Your task to perform on an android device: Clear the shopping cart on amazon. Add "usb-c to usb-b" to the cart on amazon Image 0: 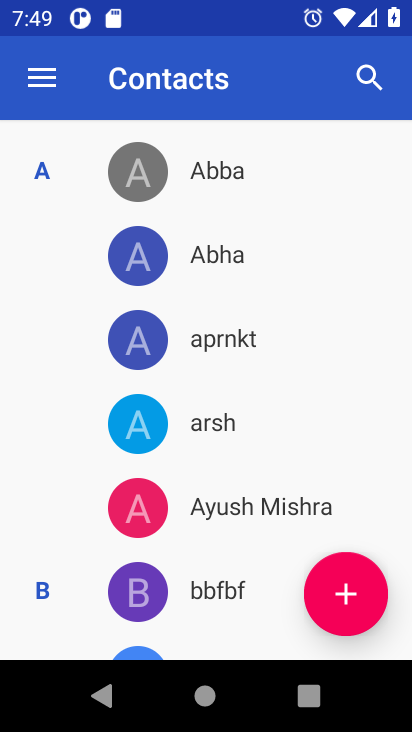
Step 0: press home button
Your task to perform on an android device: Clear the shopping cart on amazon. Add "usb-c to usb-b" to the cart on amazon Image 1: 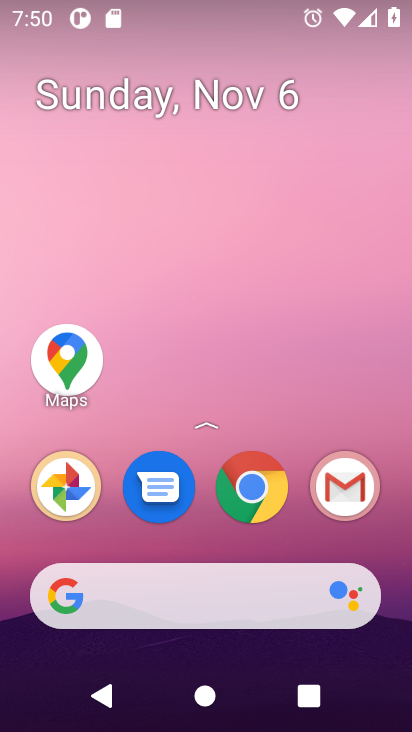
Step 1: click (260, 483)
Your task to perform on an android device: Clear the shopping cart on amazon. Add "usb-c to usb-b" to the cart on amazon Image 2: 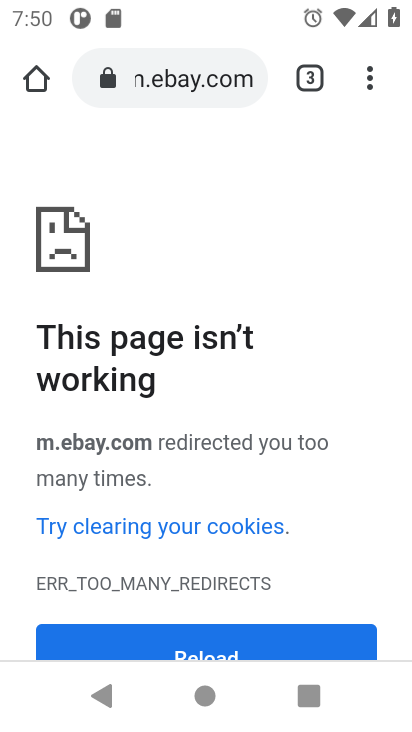
Step 2: click (156, 63)
Your task to perform on an android device: Clear the shopping cart on amazon. Add "usb-c to usb-b" to the cart on amazon Image 3: 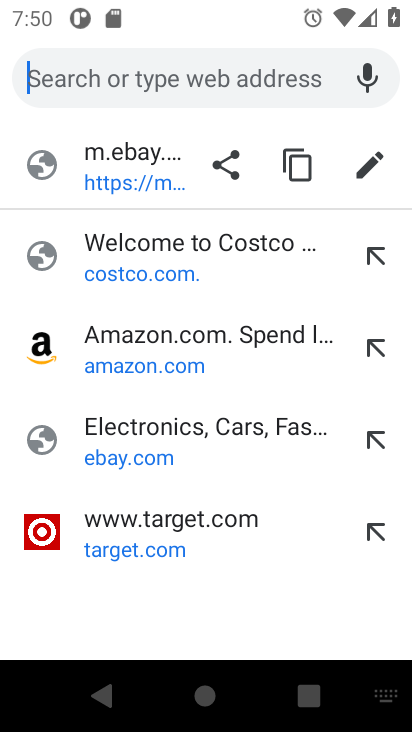
Step 3: click (116, 368)
Your task to perform on an android device: Clear the shopping cart on amazon. Add "usb-c to usb-b" to the cart on amazon Image 4: 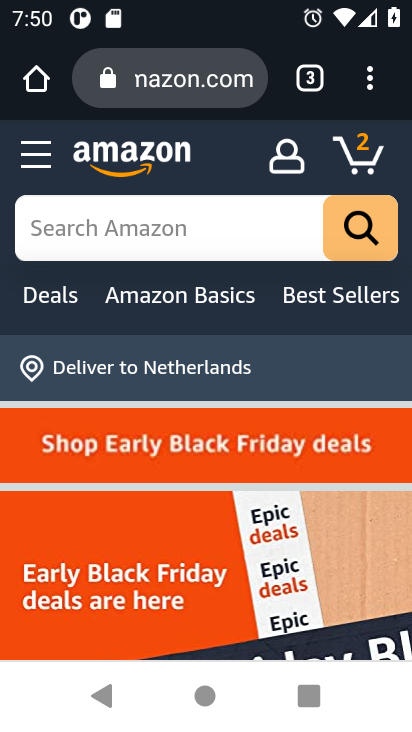
Step 4: click (118, 216)
Your task to perform on an android device: Clear the shopping cart on amazon. Add "usb-c to usb-b" to the cart on amazon Image 5: 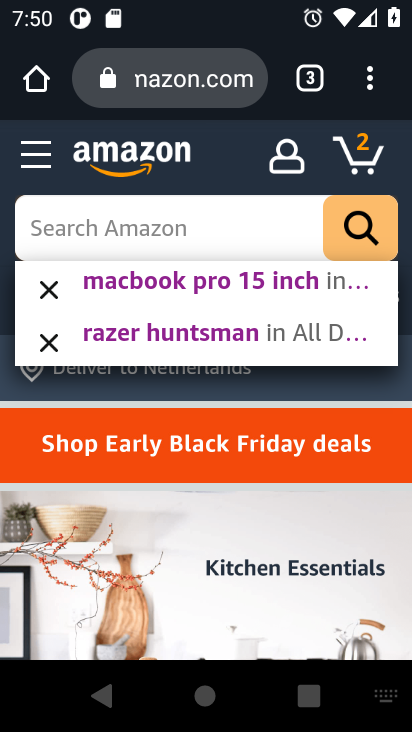
Step 5: type "usb-c to usb-b"
Your task to perform on an android device: Clear the shopping cart on amazon. Add "usb-c to usb-b" to the cart on amazon Image 6: 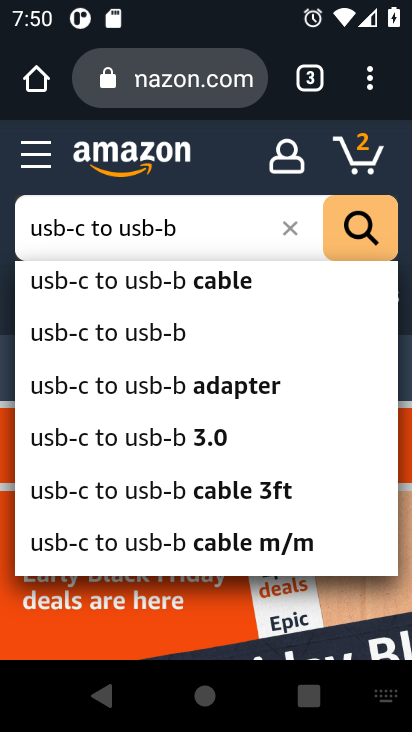
Step 6: click (360, 224)
Your task to perform on an android device: Clear the shopping cart on amazon. Add "usb-c to usb-b" to the cart on amazon Image 7: 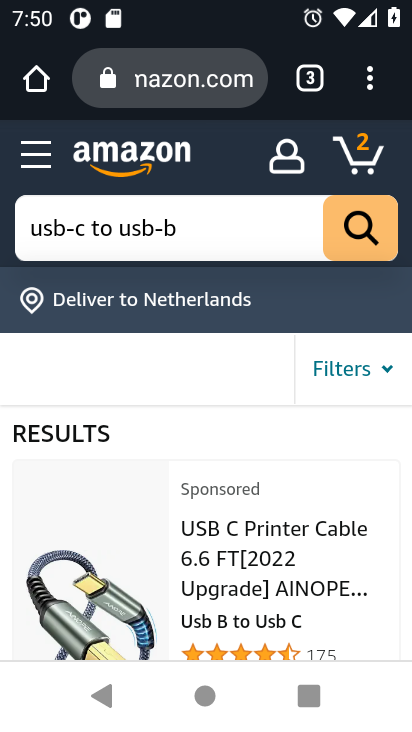
Step 7: drag from (307, 552) to (240, 299)
Your task to perform on an android device: Clear the shopping cart on amazon. Add "usb-c to usb-b" to the cart on amazon Image 8: 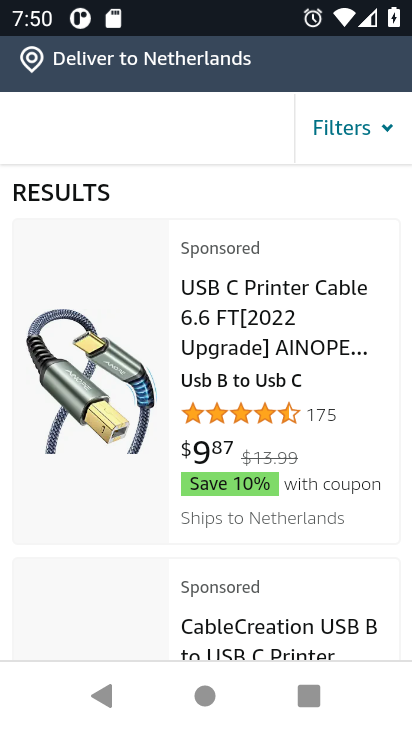
Step 8: drag from (349, 570) to (242, 188)
Your task to perform on an android device: Clear the shopping cart on amazon. Add "usb-c to usb-b" to the cart on amazon Image 9: 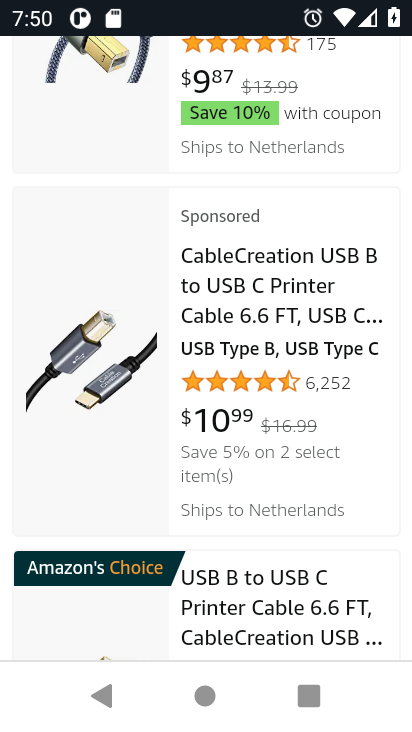
Step 9: drag from (242, 576) to (201, 209)
Your task to perform on an android device: Clear the shopping cart on amazon. Add "usb-c to usb-b" to the cart on amazon Image 10: 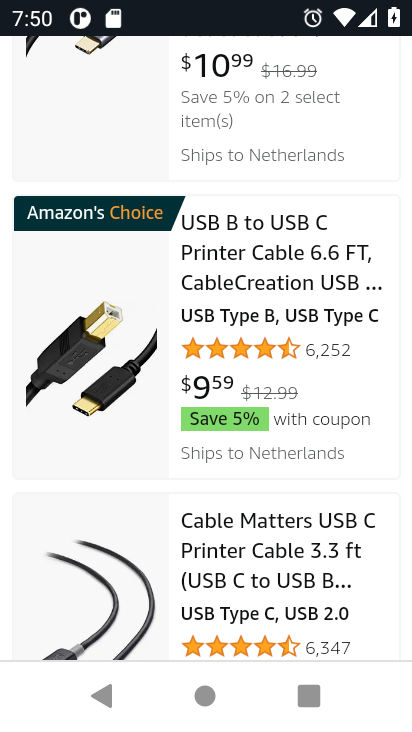
Step 10: click (232, 438)
Your task to perform on an android device: Clear the shopping cart on amazon. Add "usb-c to usb-b" to the cart on amazon Image 11: 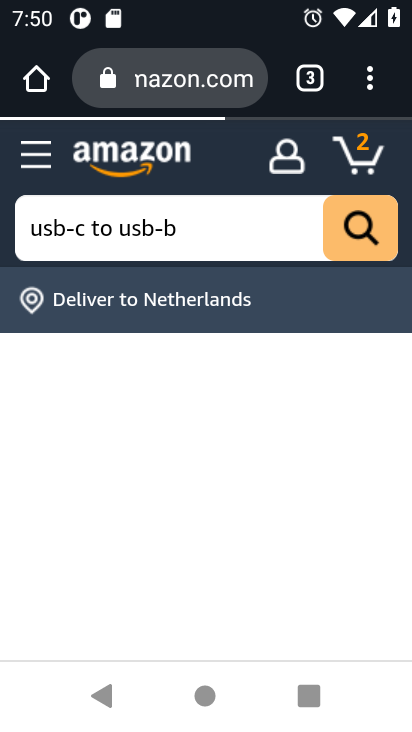
Step 11: click (307, 269)
Your task to perform on an android device: Clear the shopping cart on amazon. Add "usb-c to usb-b" to the cart on amazon Image 12: 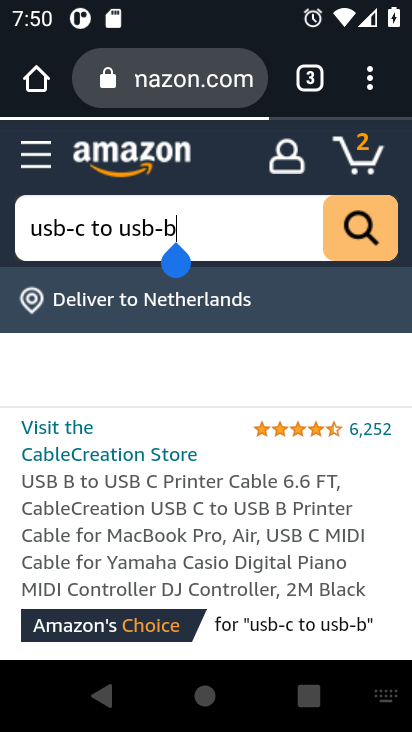
Step 12: drag from (224, 462) to (208, 106)
Your task to perform on an android device: Clear the shopping cart on amazon. Add "usb-c to usb-b" to the cart on amazon Image 13: 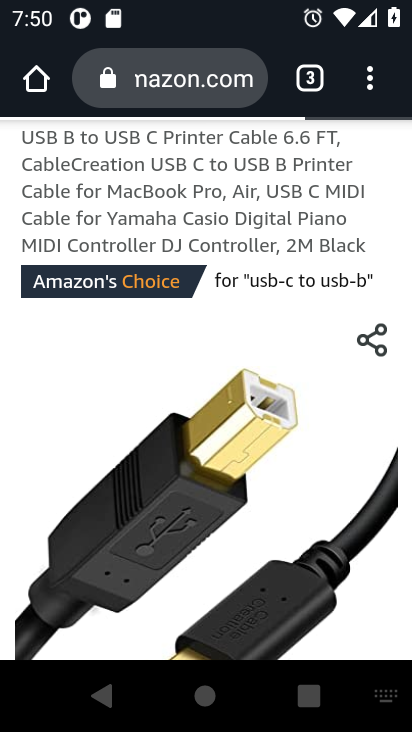
Step 13: drag from (156, 530) to (132, 100)
Your task to perform on an android device: Clear the shopping cart on amazon. Add "usb-c to usb-b" to the cart on amazon Image 14: 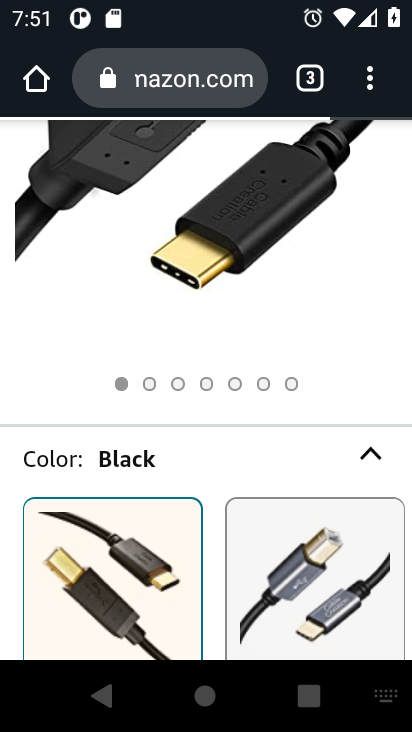
Step 14: drag from (212, 450) to (162, 102)
Your task to perform on an android device: Clear the shopping cart on amazon. Add "usb-c to usb-b" to the cart on amazon Image 15: 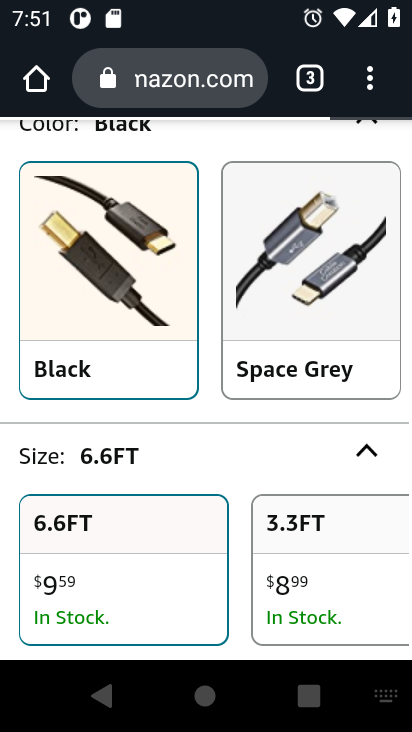
Step 15: drag from (247, 634) to (165, 162)
Your task to perform on an android device: Clear the shopping cart on amazon. Add "usb-c to usb-b" to the cart on amazon Image 16: 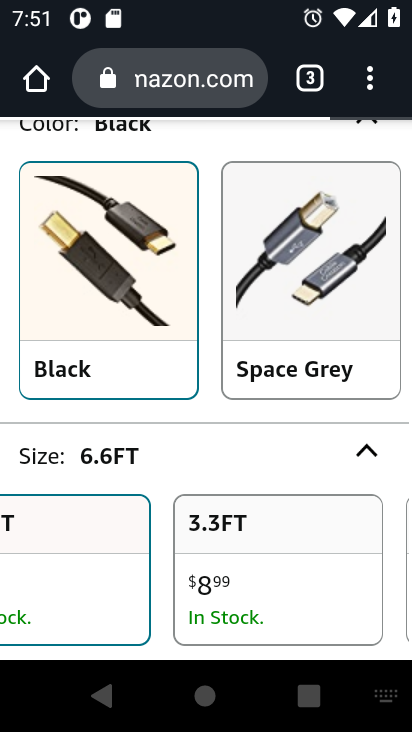
Step 16: drag from (155, 641) to (206, 240)
Your task to perform on an android device: Clear the shopping cart on amazon. Add "usb-c to usb-b" to the cart on amazon Image 17: 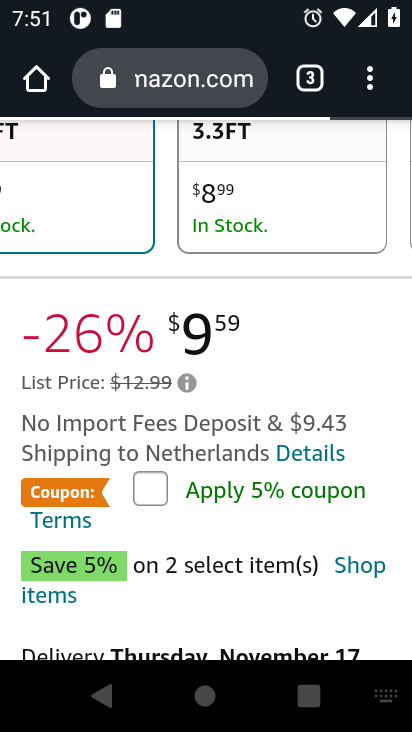
Step 17: drag from (187, 543) to (153, 242)
Your task to perform on an android device: Clear the shopping cart on amazon. Add "usb-c to usb-b" to the cart on amazon Image 18: 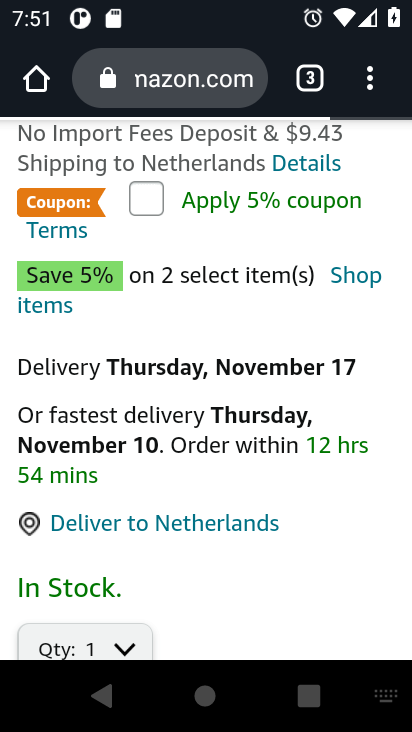
Step 18: click (147, 191)
Your task to perform on an android device: Clear the shopping cart on amazon. Add "usb-c to usb-b" to the cart on amazon Image 19: 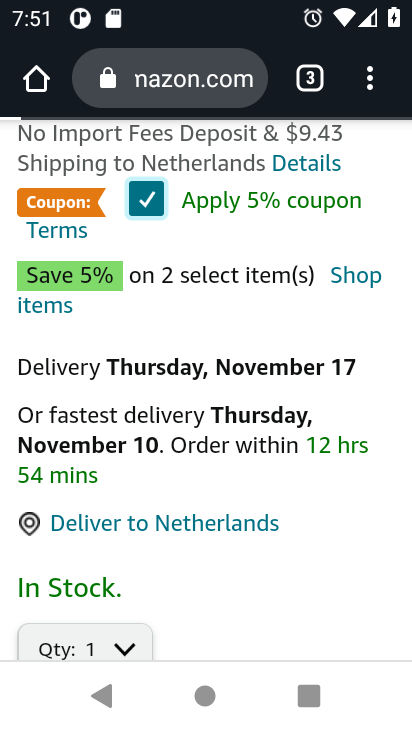
Step 19: drag from (192, 614) to (201, 152)
Your task to perform on an android device: Clear the shopping cart on amazon. Add "usb-c to usb-b" to the cart on amazon Image 20: 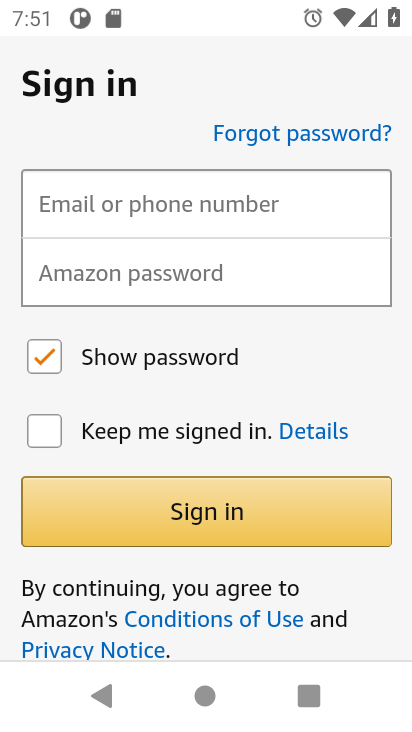
Step 20: press back button
Your task to perform on an android device: Clear the shopping cart on amazon. Add "usb-c to usb-b" to the cart on amazon Image 21: 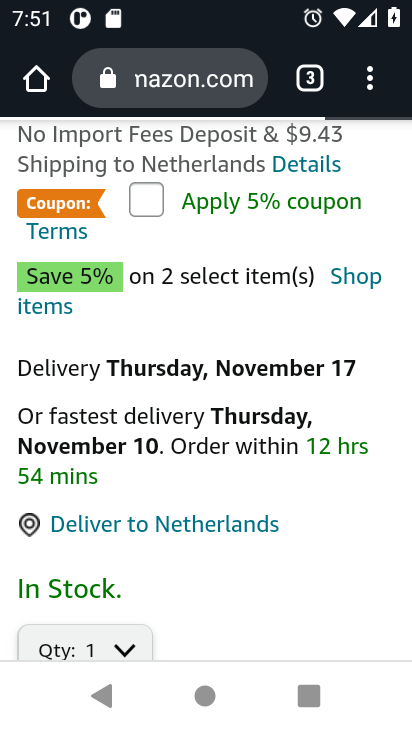
Step 21: drag from (242, 590) to (202, 281)
Your task to perform on an android device: Clear the shopping cart on amazon. Add "usb-c to usb-b" to the cart on amazon Image 22: 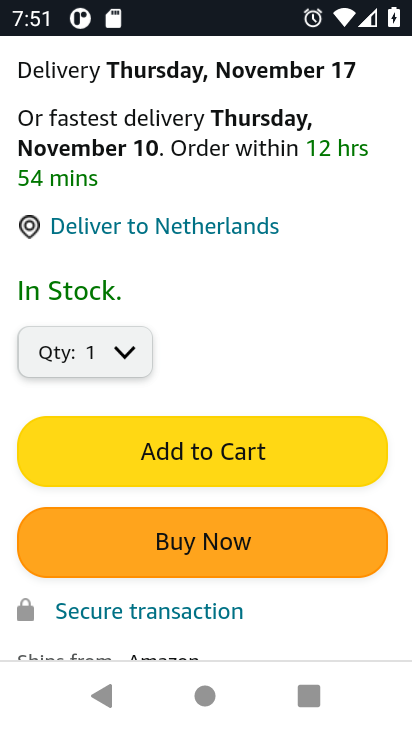
Step 22: click (181, 427)
Your task to perform on an android device: Clear the shopping cart on amazon. Add "usb-c to usb-b" to the cart on amazon Image 23: 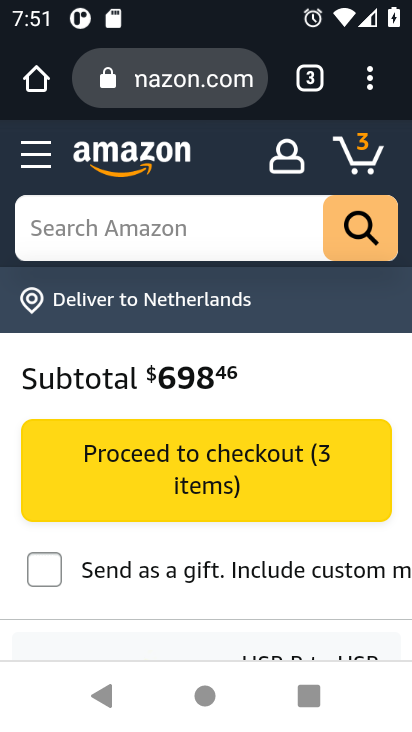
Step 23: task complete